Your task to perform on an android device: Search for Italian restaurants on Maps Image 0: 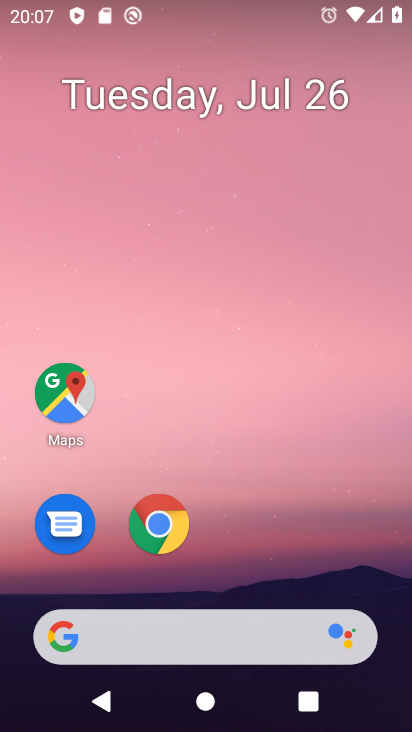
Step 0: click (67, 392)
Your task to perform on an android device: Search for Italian restaurants on Maps Image 1: 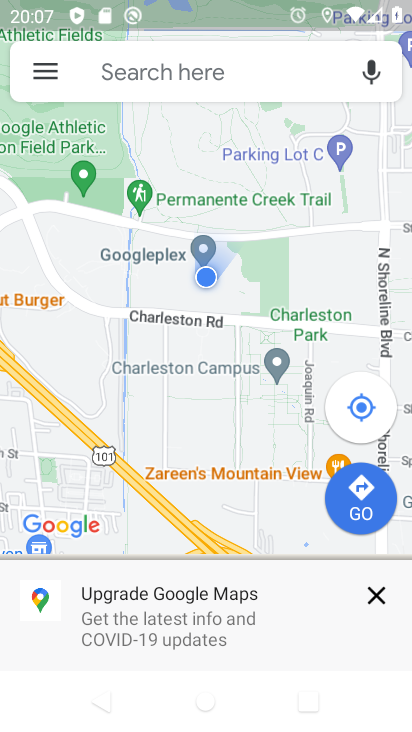
Step 1: click (156, 68)
Your task to perform on an android device: Search for Italian restaurants on Maps Image 2: 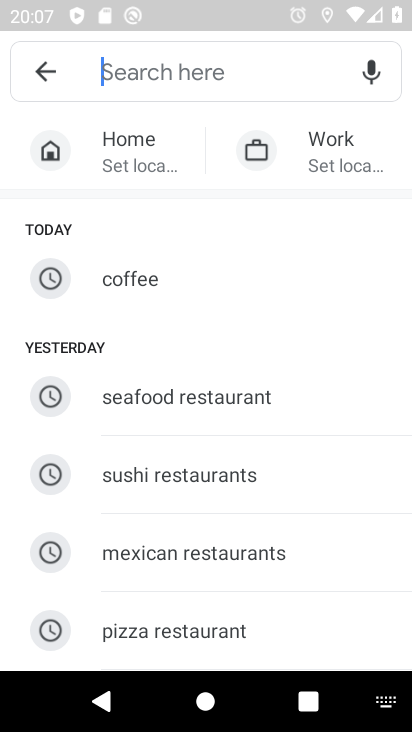
Step 2: drag from (298, 484) to (304, 184)
Your task to perform on an android device: Search for Italian restaurants on Maps Image 3: 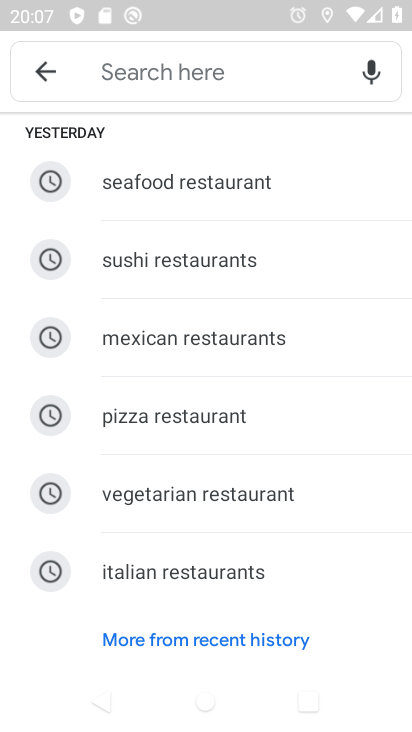
Step 3: click (225, 577)
Your task to perform on an android device: Search for Italian restaurants on Maps Image 4: 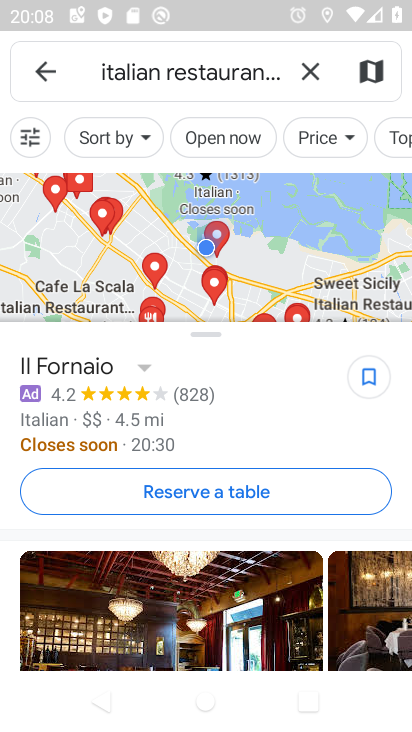
Step 4: task complete